Your task to perform on an android device: Search for dell xps on amazon.com, select the first entry, add it to the cart, then select checkout. Image 0: 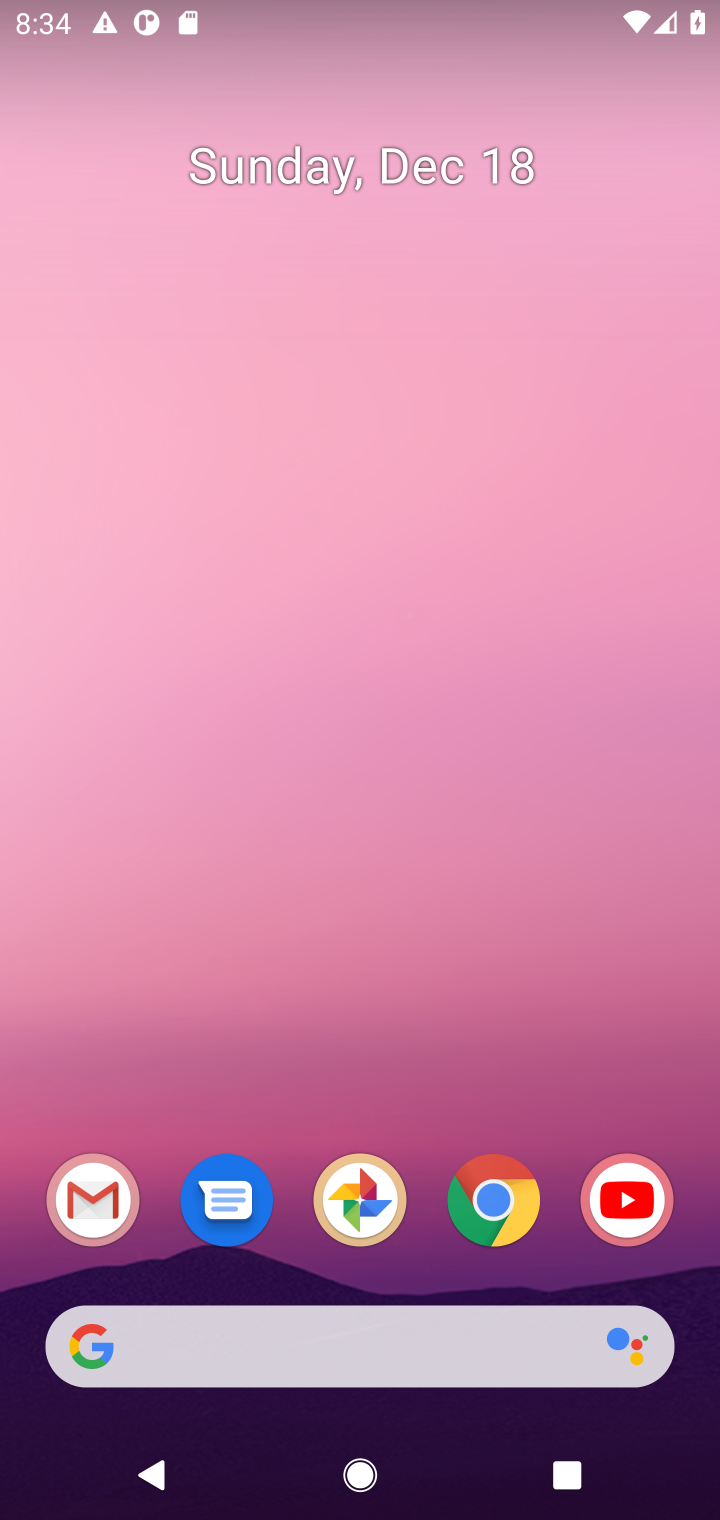
Step 0: click (503, 1217)
Your task to perform on an android device: Search for dell xps on amazon.com, select the first entry, add it to the cart, then select checkout. Image 1: 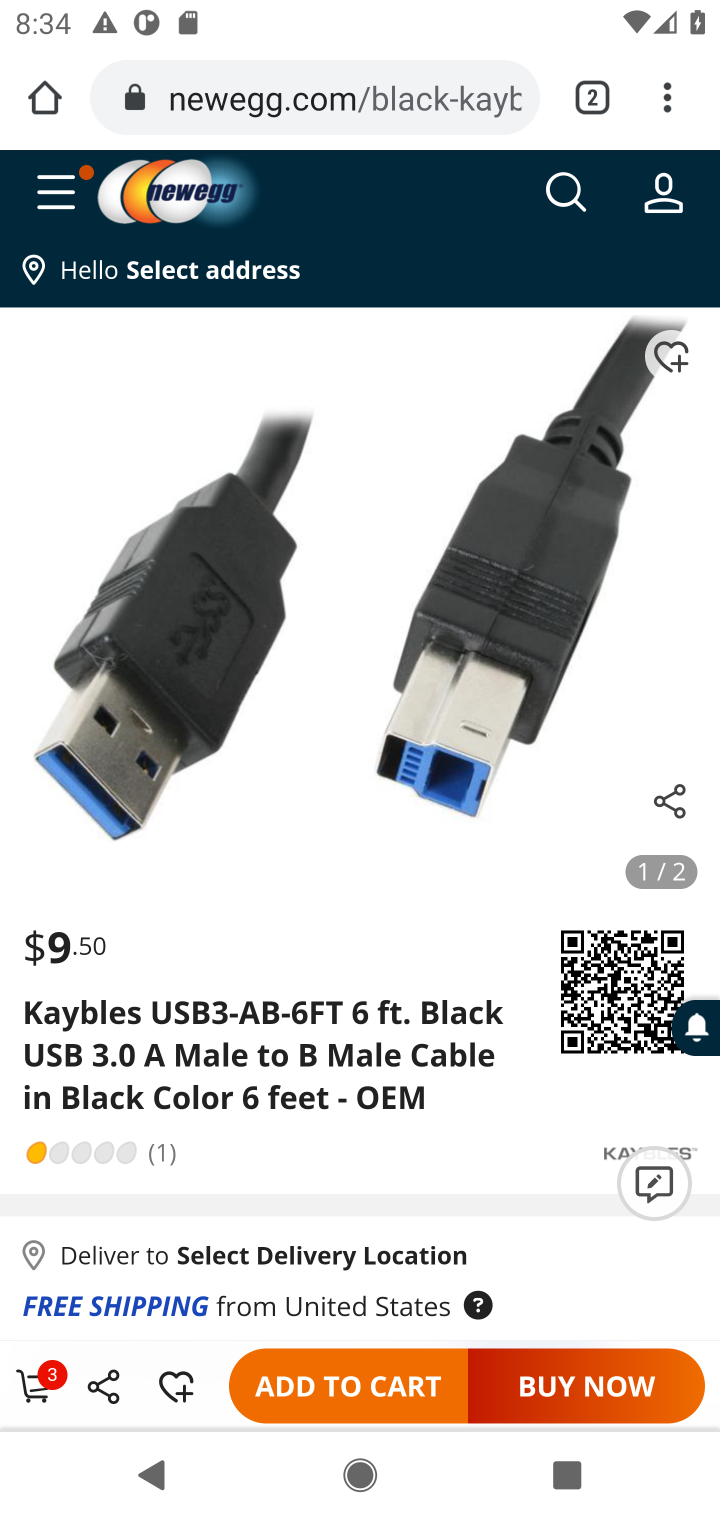
Step 1: click (284, 91)
Your task to perform on an android device: Search for dell xps on amazon.com, select the first entry, add it to the cart, then select checkout. Image 2: 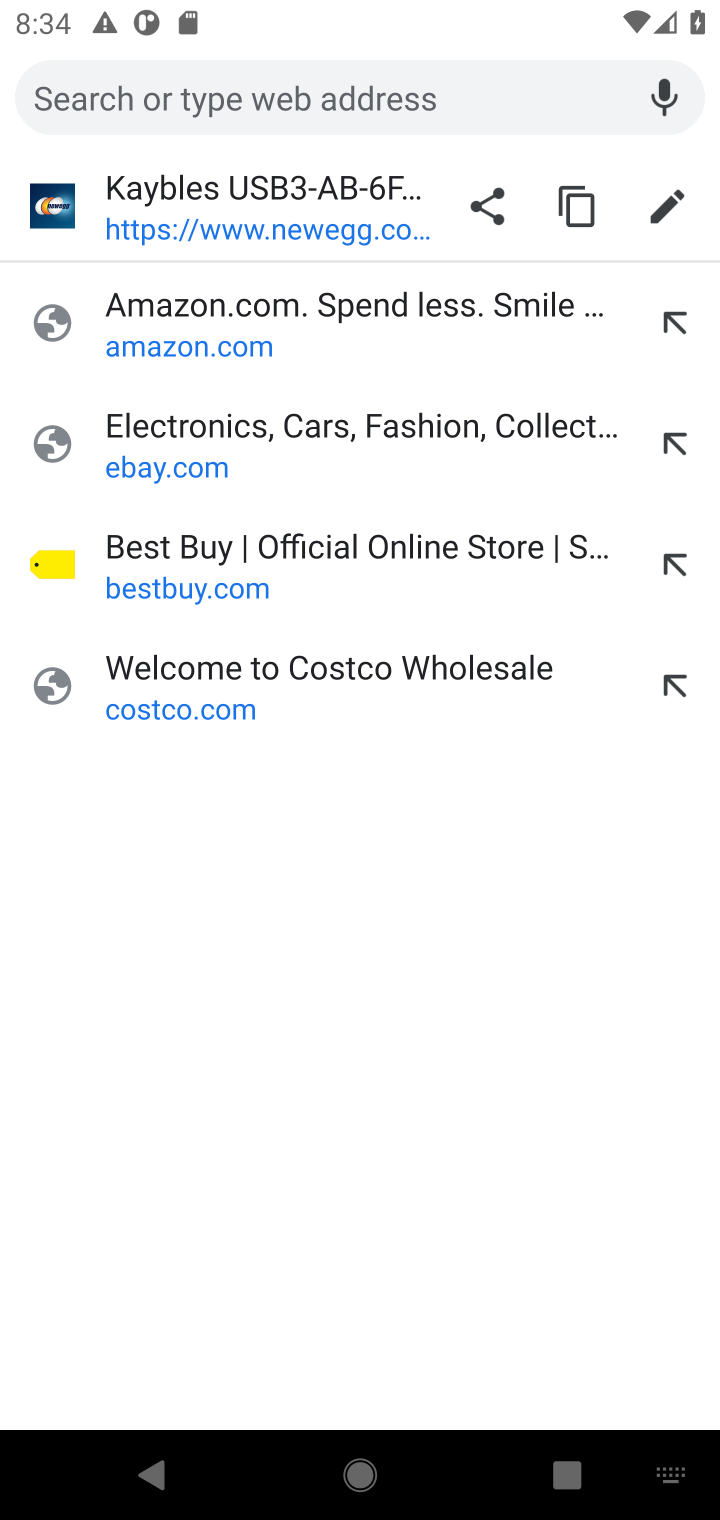
Step 2: click (154, 345)
Your task to perform on an android device: Search for dell xps on amazon.com, select the first entry, add it to the cart, then select checkout. Image 3: 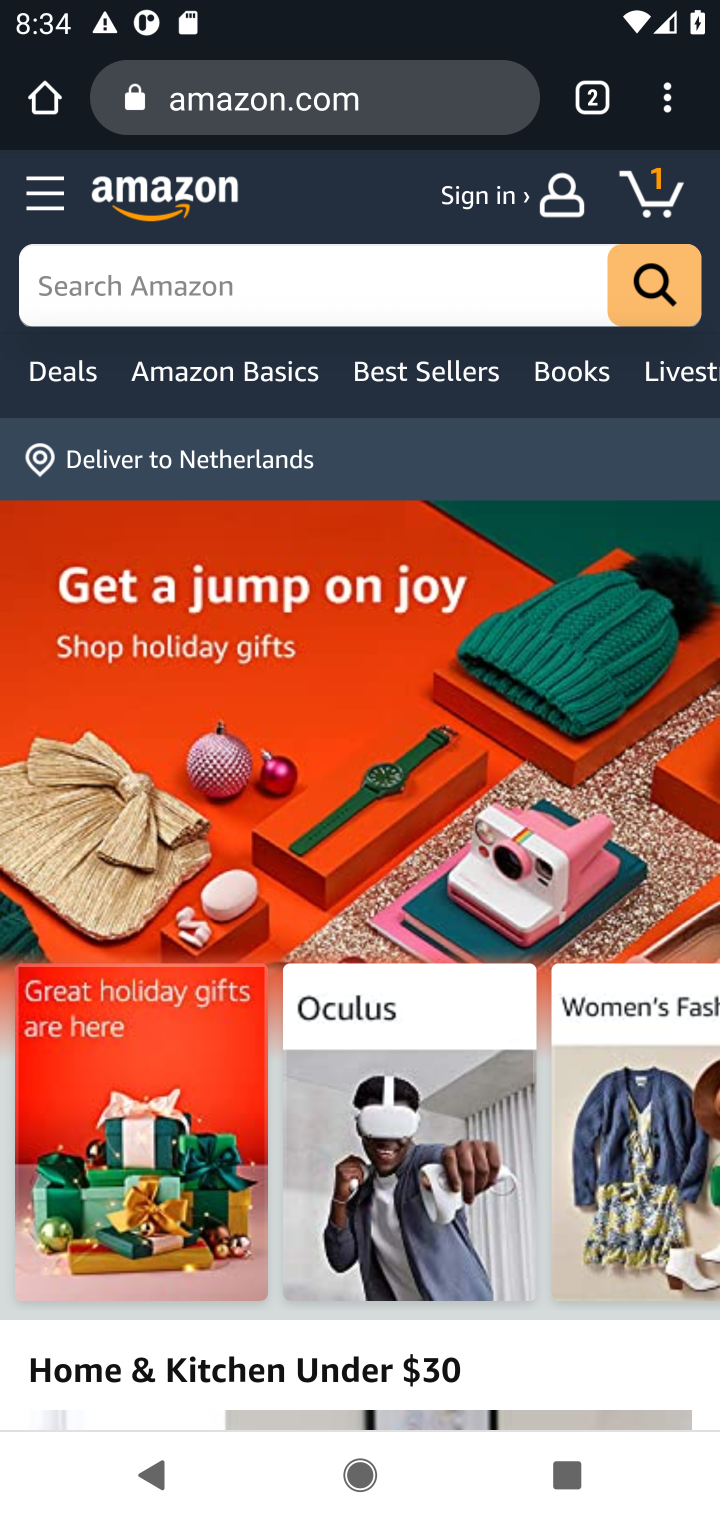
Step 3: click (173, 296)
Your task to perform on an android device: Search for dell xps on amazon.com, select the first entry, add it to the cart, then select checkout. Image 4: 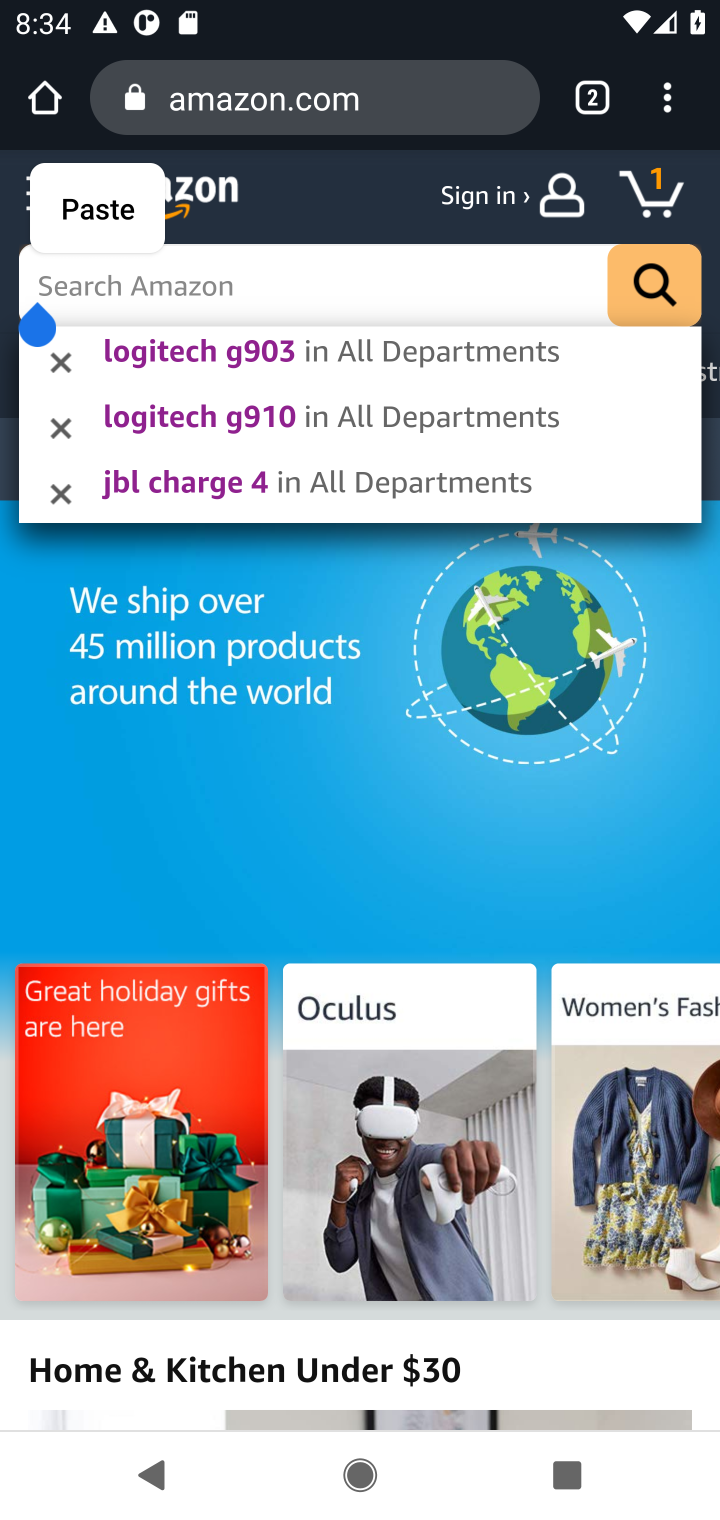
Step 4: type "dell xps"
Your task to perform on an android device: Search for dell xps on amazon.com, select the first entry, add it to the cart, then select checkout. Image 5: 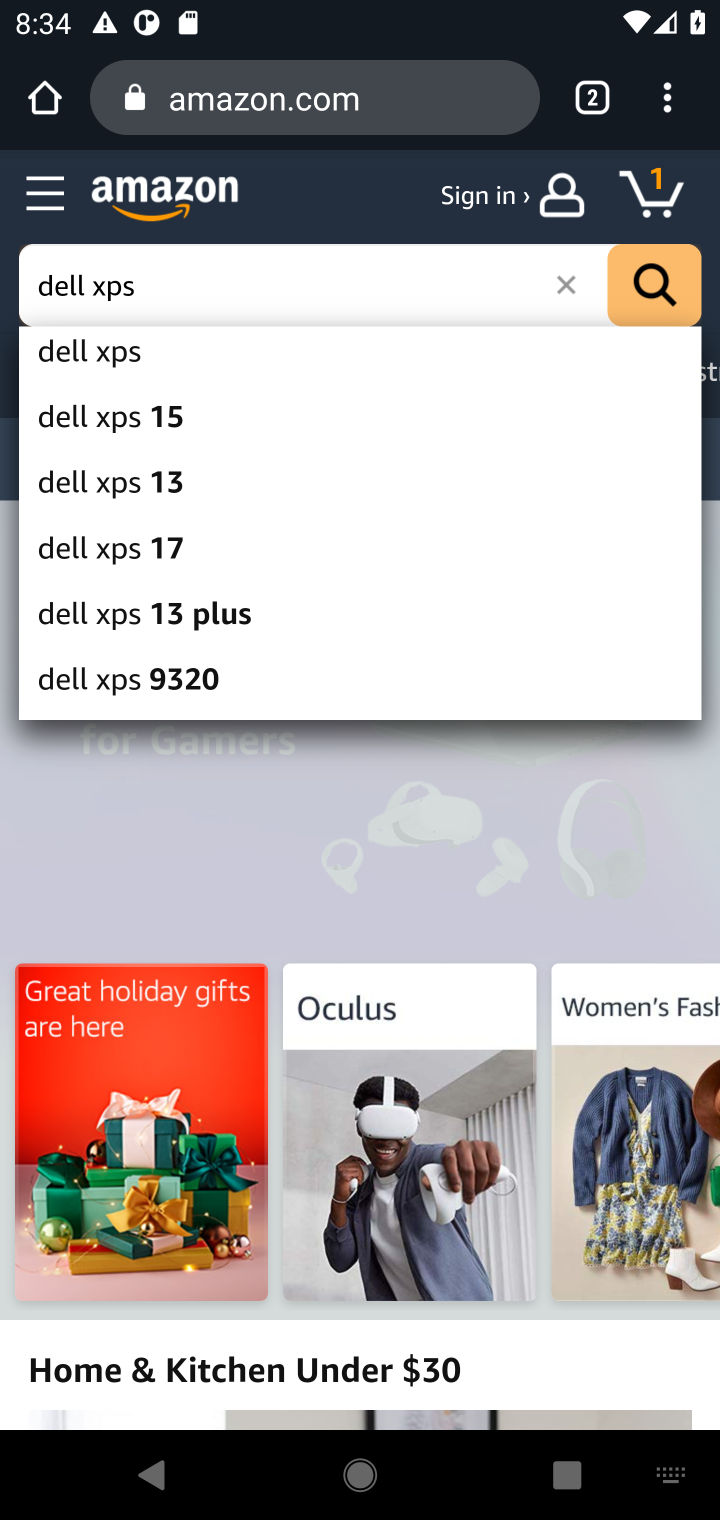
Step 5: click (69, 361)
Your task to perform on an android device: Search for dell xps on amazon.com, select the first entry, add it to the cart, then select checkout. Image 6: 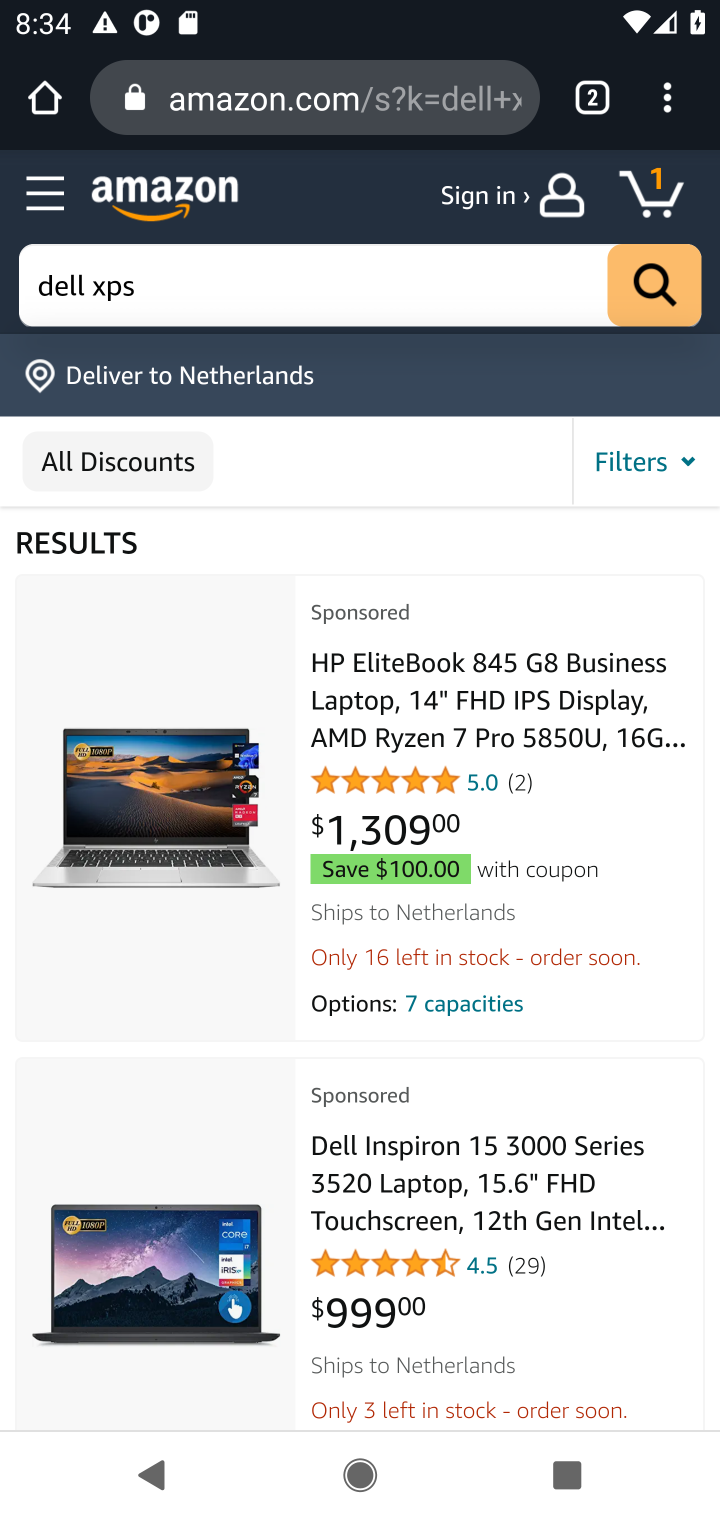
Step 6: task complete